Your task to perform on an android device: turn off location history Image 0: 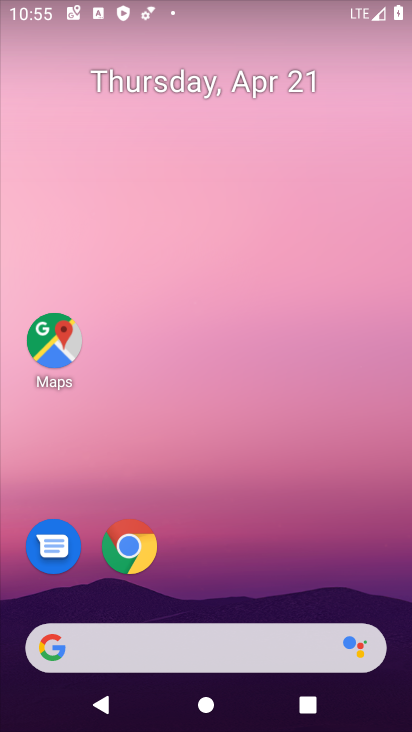
Step 0: click (54, 336)
Your task to perform on an android device: turn off location history Image 1: 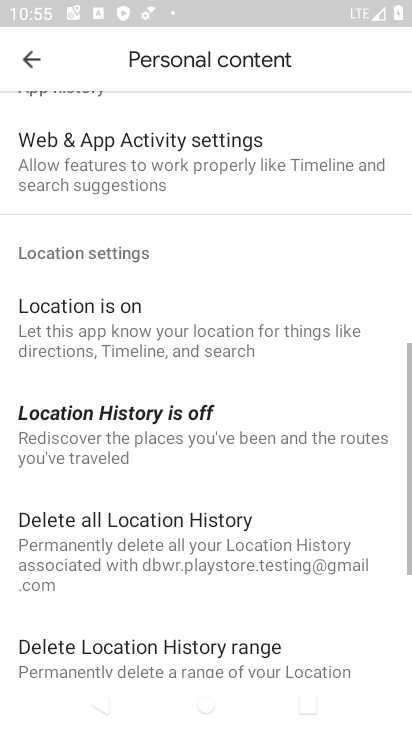
Step 1: click (217, 254)
Your task to perform on an android device: turn off location history Image 2: 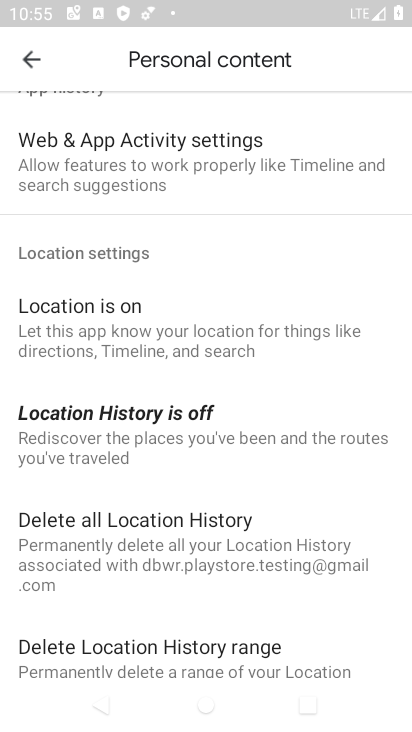
Step 2: press back button
Your task to perform on an android device: turn off location history Image 3: 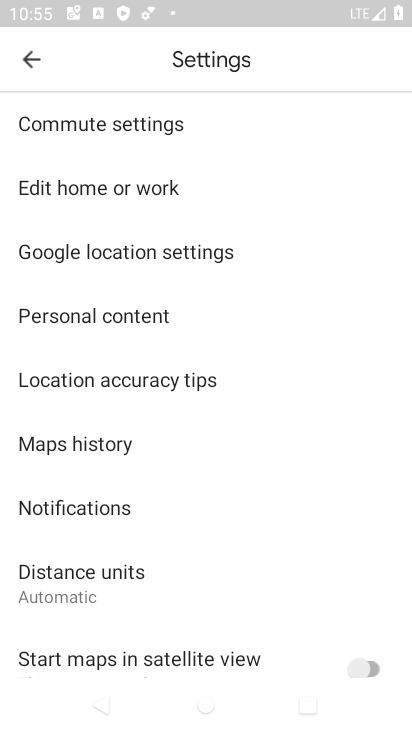
Step 3: click (65, 315)
Your task to perform on an android device: turn off location history Image 4: 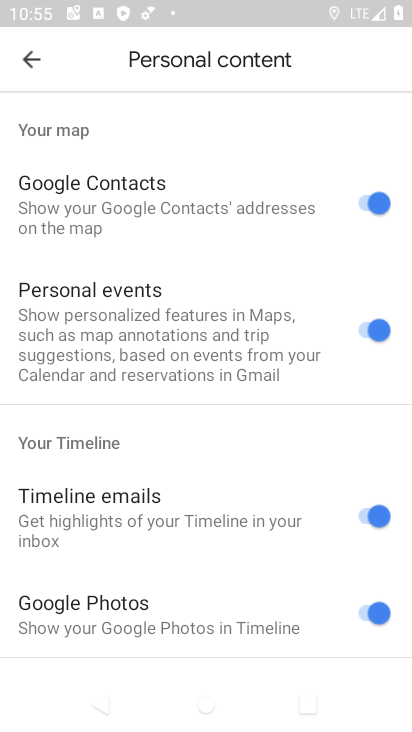
Step 4: task complete